Your task to perform on an android device: turn off notifications in google photos Image 0: 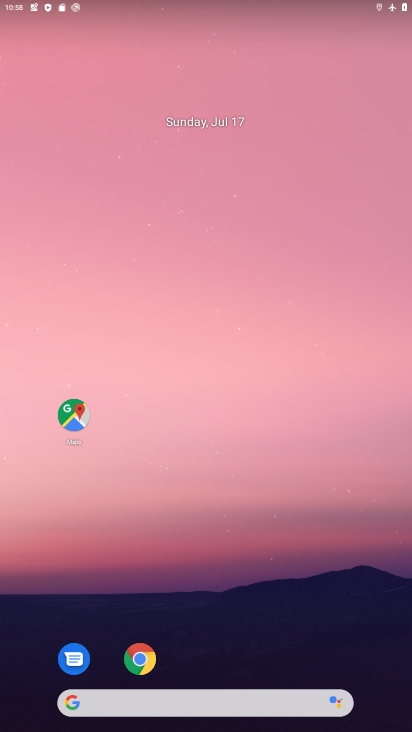
Step 0: drag from (275, 574) to (222, 139)
Your task to perform on an android device: turn off notifications in google photos Image 1: 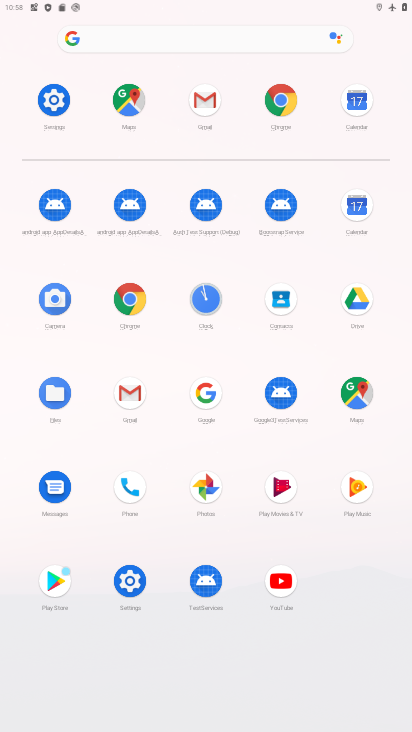
Step 1: click (213, 474)
Your task to perform on an android device: turn off notifications in google photos Image 2: 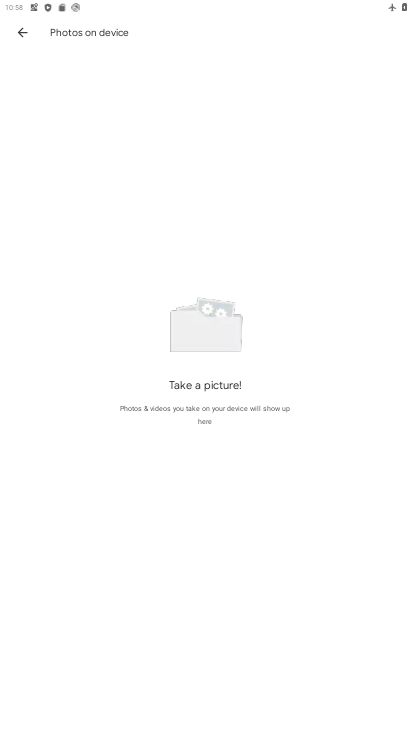
Step 2: click (19, 26)
Your task to perform on an android device: turn off notifications in google photos Image 3: 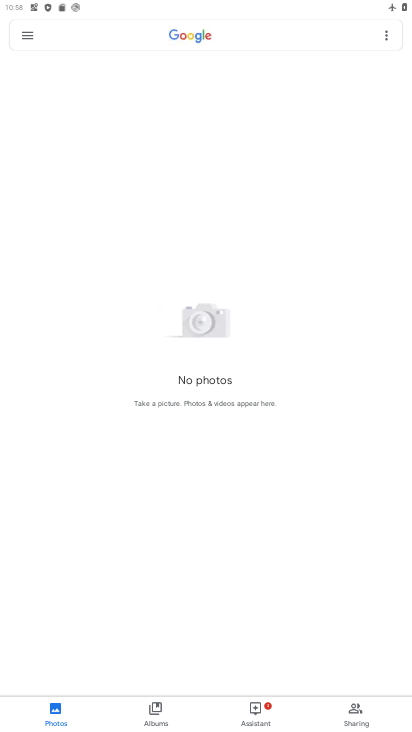
Step 3: click (29, 31)
Your task to perform on an android device: turn off notifications in google photos Image 4: 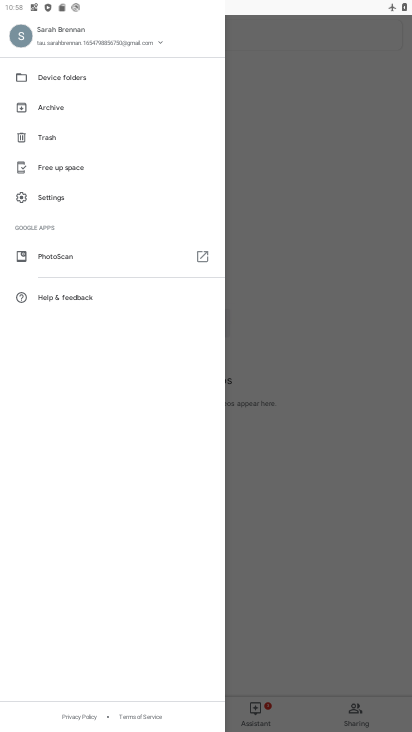
Step 4: click (64, 192)
Your task to perform on an android device: turn off notifications in google photos Image 5: 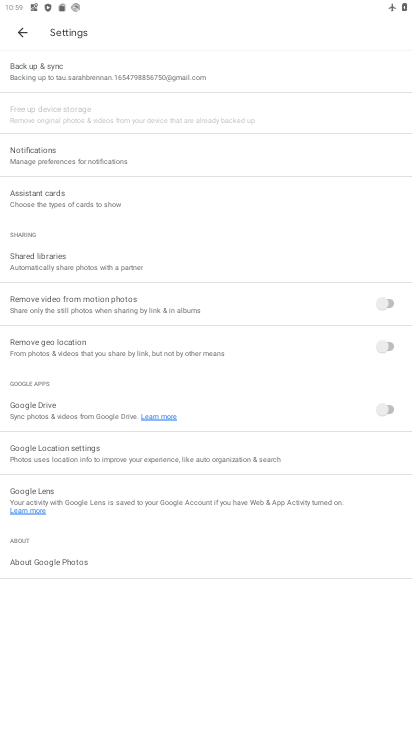
Step 5: click (55, 161)
Your task to perform on an android device: turn off notifications in google photos Image 6: 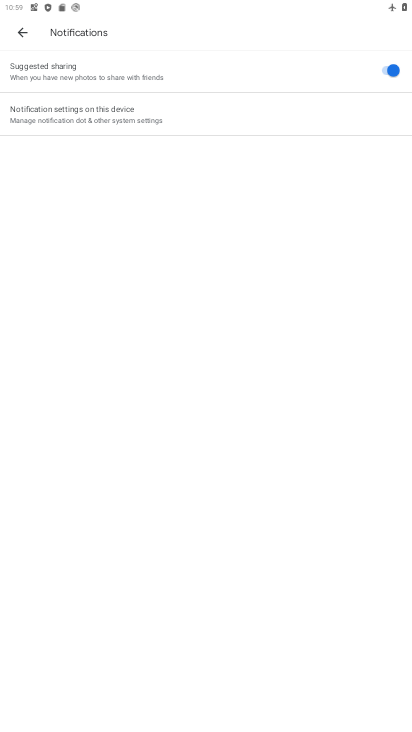
Step 6: click (133, 115)
Your task to perform on an android device: turn off notifications in google photos Image 7: 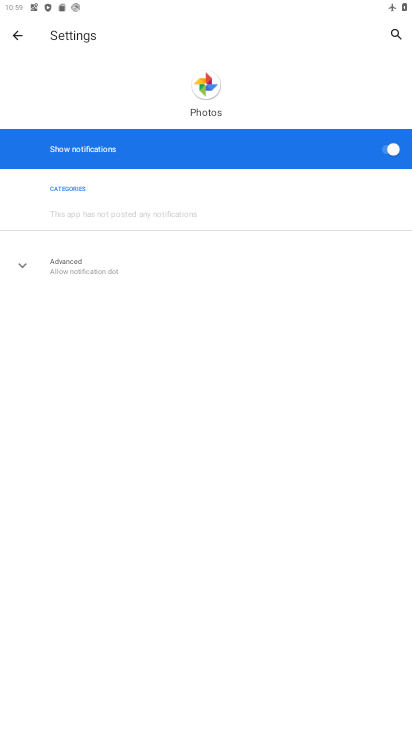
Step 7: click (388, 147)
Your task to perform on an android device: turn off notifications in google photos Image 8: 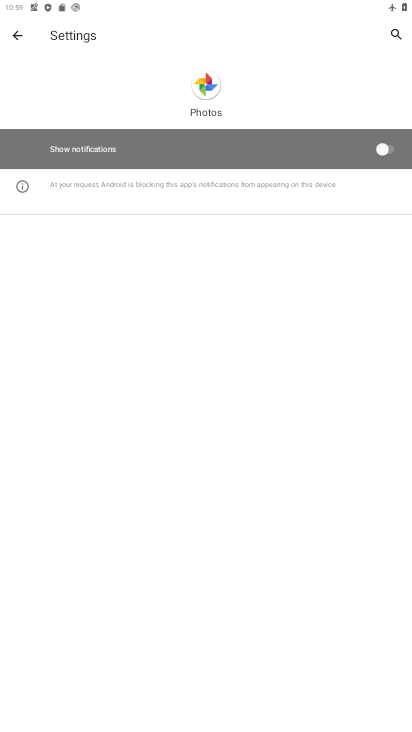
Step 8: task complete